Your task to perform on an android device: turn vacation reply on in the gmail app Image 0: 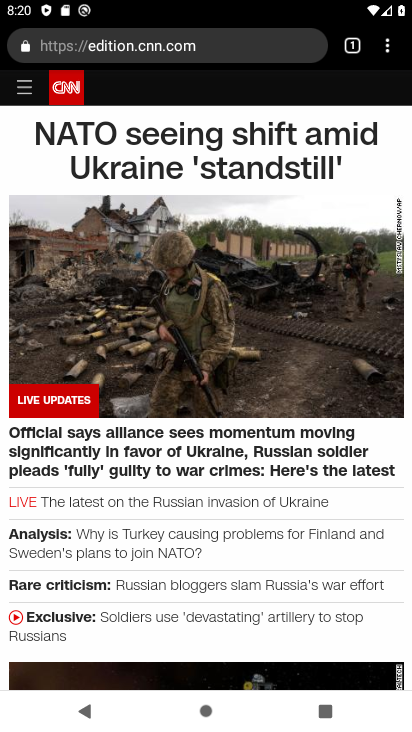
Step 0: press home button
Your task to perform on an android device: turn vacation reply on in the gmail app Image 1: 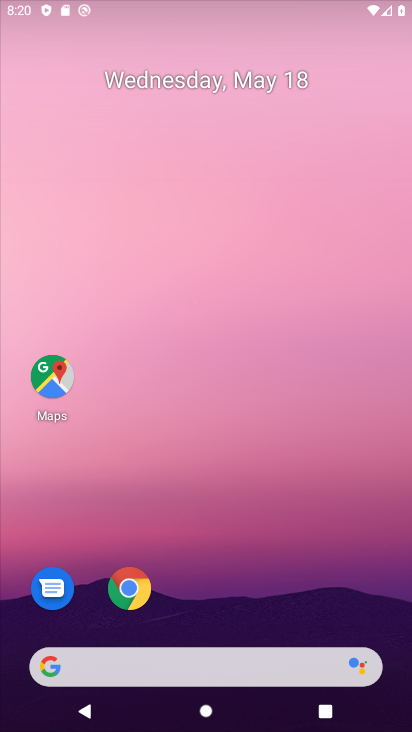
Step 1: drag from (349, 616) to (310, 202)
Your task to perform on an android device: turn vacation reply on in the gmail app Image 2: 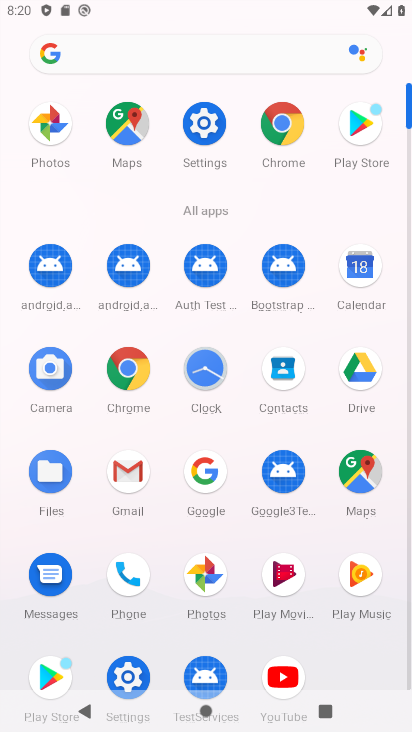
Step 2: click (123, 488)
Your task to perform on an android device: turn vacation reply on in the gmail app Image 3: 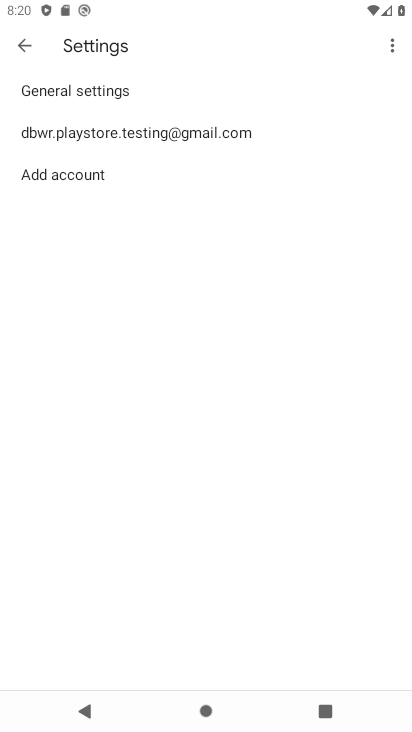
Step 3: click (245, 135)
Your task to perform on an android device: turn vacation reply on in the gmail app Image 4: 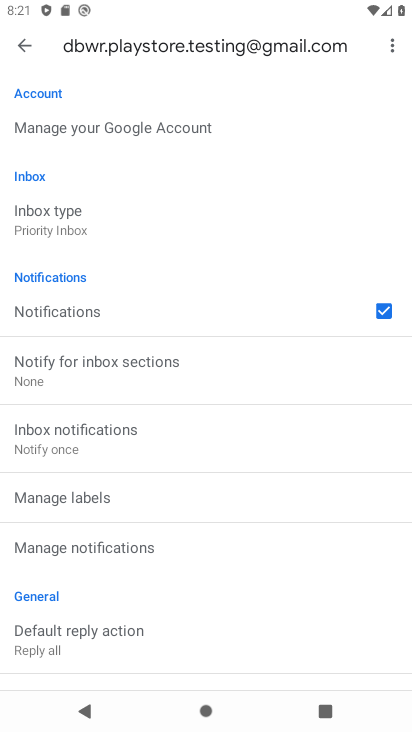
Step 4: drag from (218, 533) to (218, 280)
Your task to perform on an android device: turn vacation reply on in the gmail app Image 5: 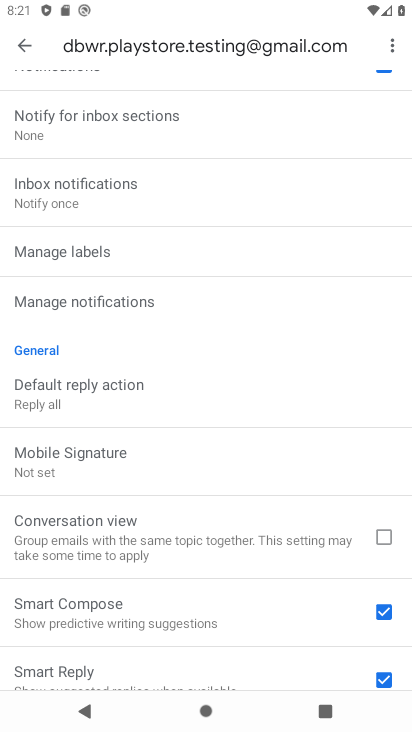
Step 5: drag from (201, 631) to (203, 421)
Your task to perform on an android device: turn vacation reply on in the gmail app Image 6: 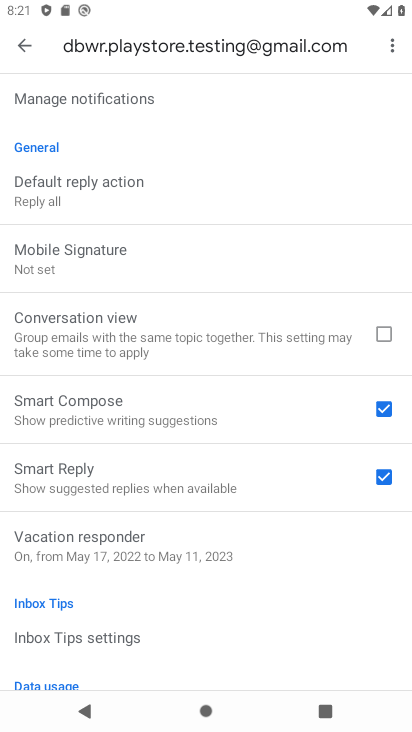
Step 6: click (146, 542)
Your task to perform on an android device: turn vacation reply on in the gmail app Image 7: 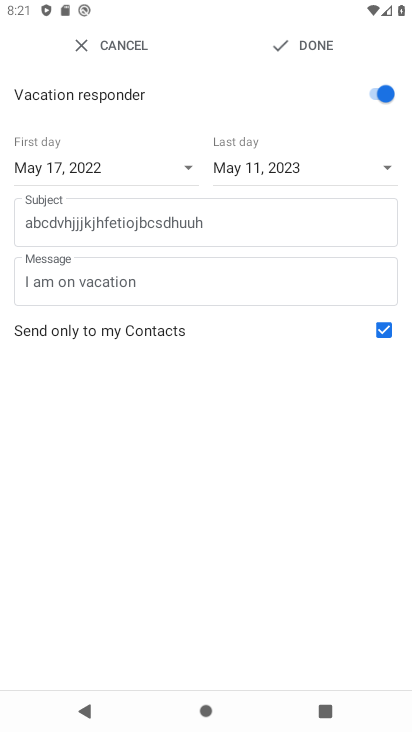
Step 7: task complete